Your task to perform on an android device: Open settings on Google Maps Image 0: 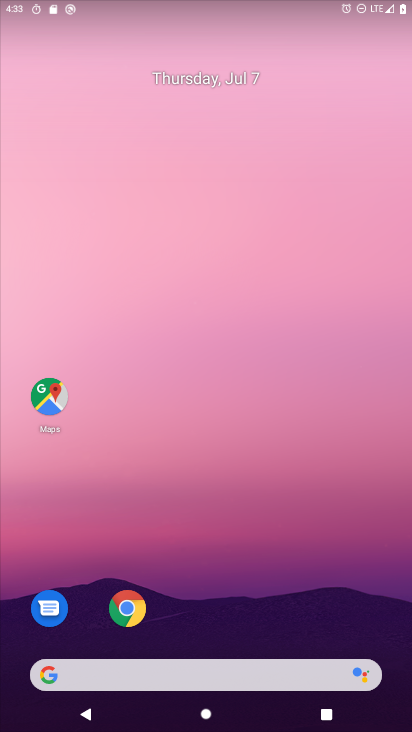
Step 0: drag from (240, 725) to (197, 79)
Your task to perform on an android device: Open settings on Google Maps Image 1: 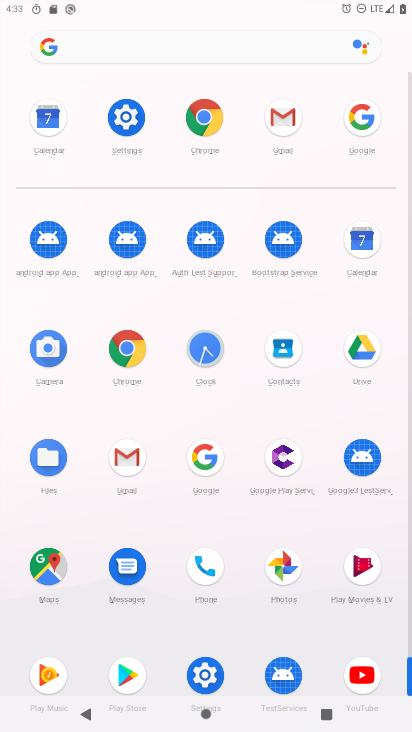
Step 1: click (45, 572)
Your task to perform on an android device: Open settings on Google Maps Image 2: 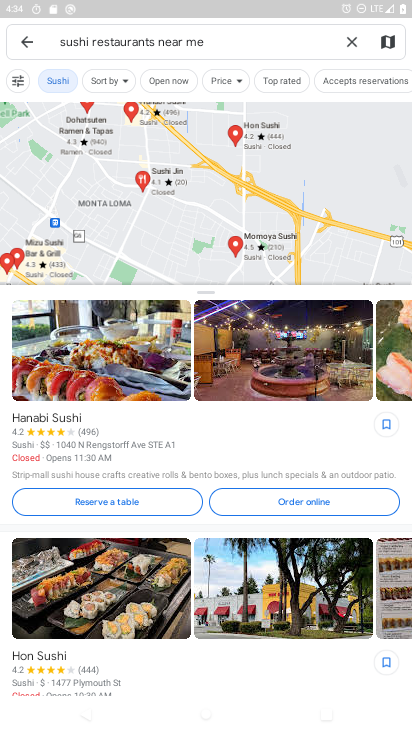
Step 2: click (23, 39)
Your task to perform on an android device: Open settings on Google Maps Image 3: 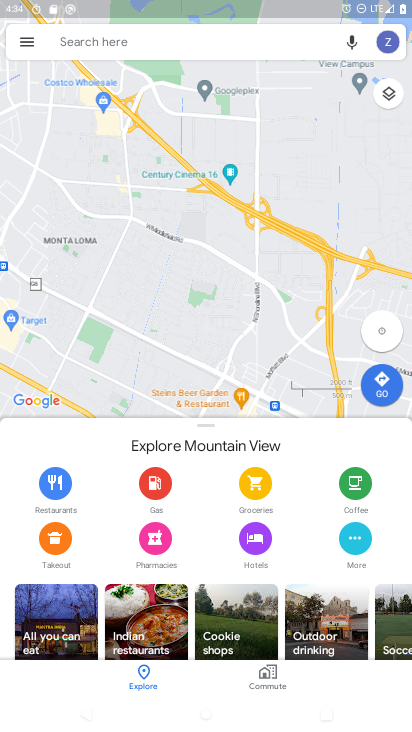
Step 3: click (24, 41)
Your task to perform on an android device: Open settings on Google Maps Image 4: 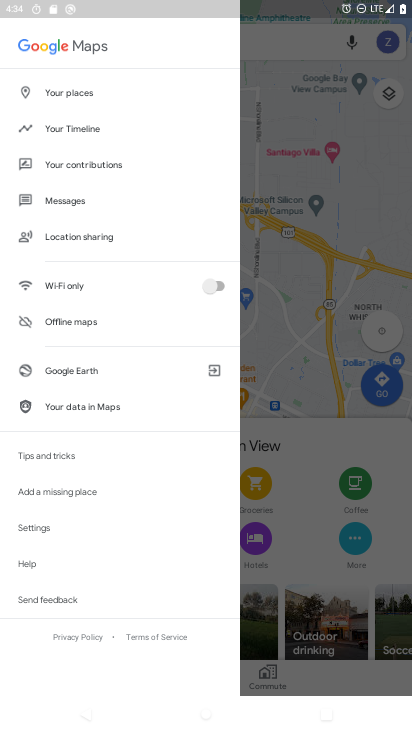
Step 4: click (35, 525)
Your task to perform on an android device: Open settings on Google Maps Image 5: 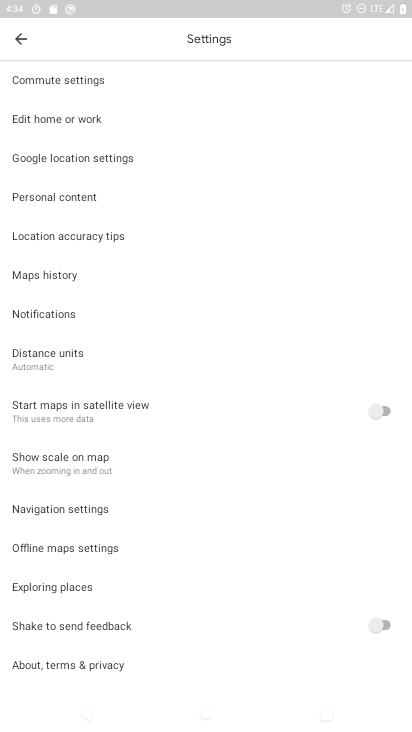
Step 5: task complete